Your task to perform on an android device: Go to display settings Image 0: 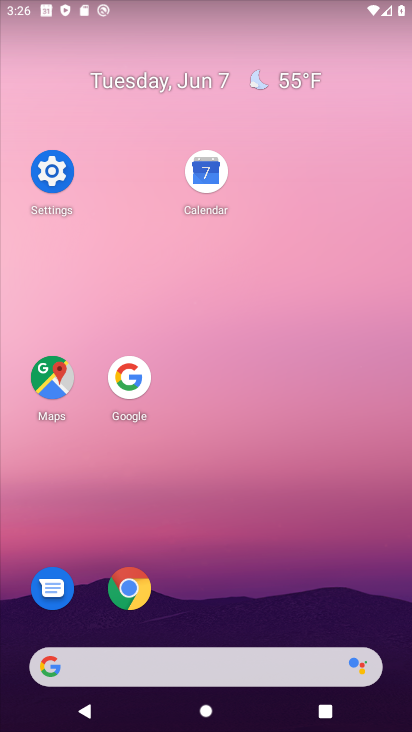
Step 0: click (57, 170)
Your task to perform on an android device: Go to display settings Image 1: 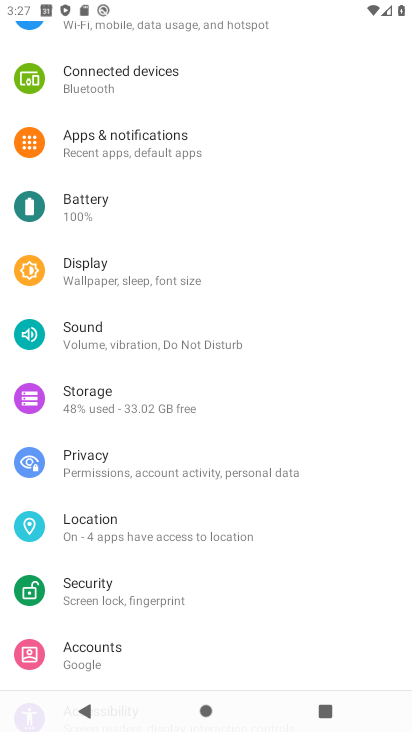
Step 1: click (190, 295)
Your task to perform on an android device: Go to display settings Image 2: 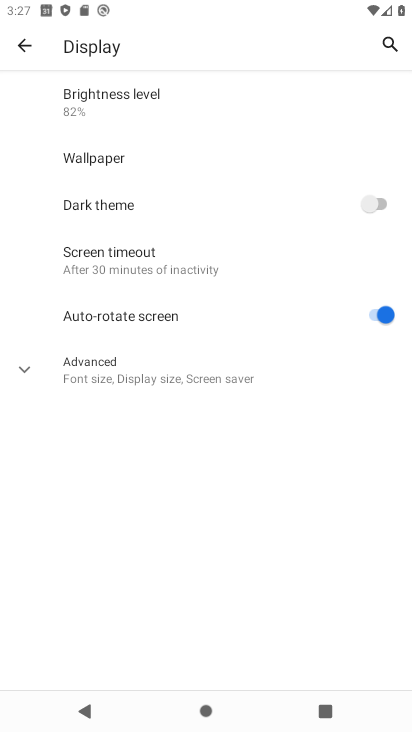
Step 2: task complete